Your task to perform on an android device: Show me popular videos on Youtube Image 0: 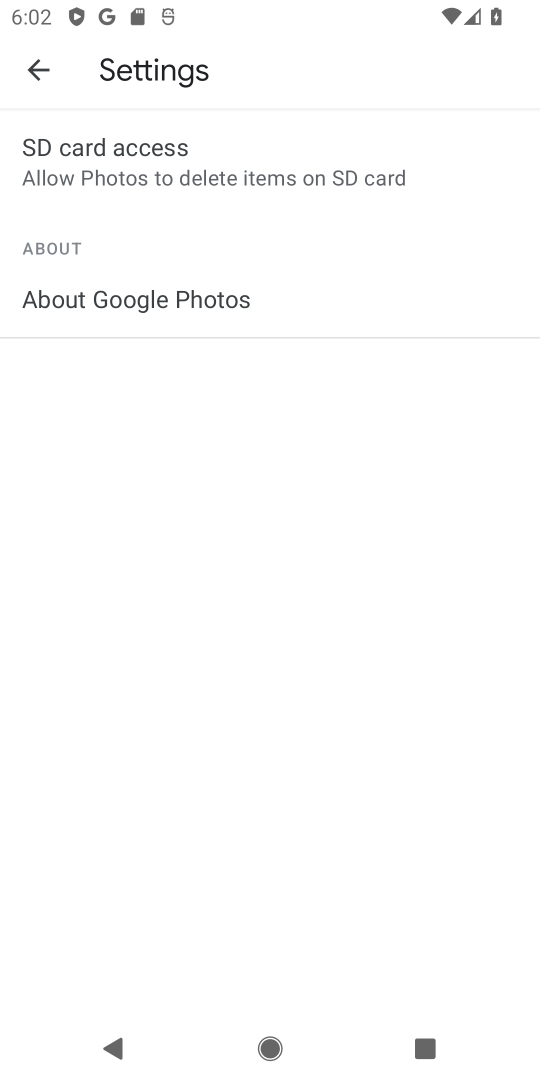
Step 0: press home button
Your task to perform on an android device: Show me popular videos on Youtube Image 1: 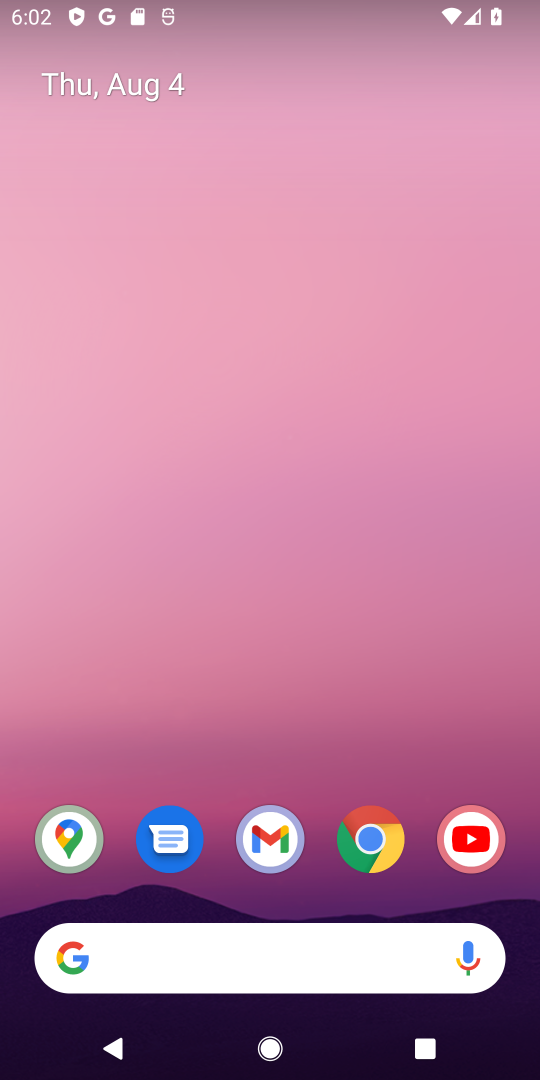
Step 1: drag from (328, 759) to (525, 147)
Your task to perform on an android device: Show me popular videos on Youtube Image 2: 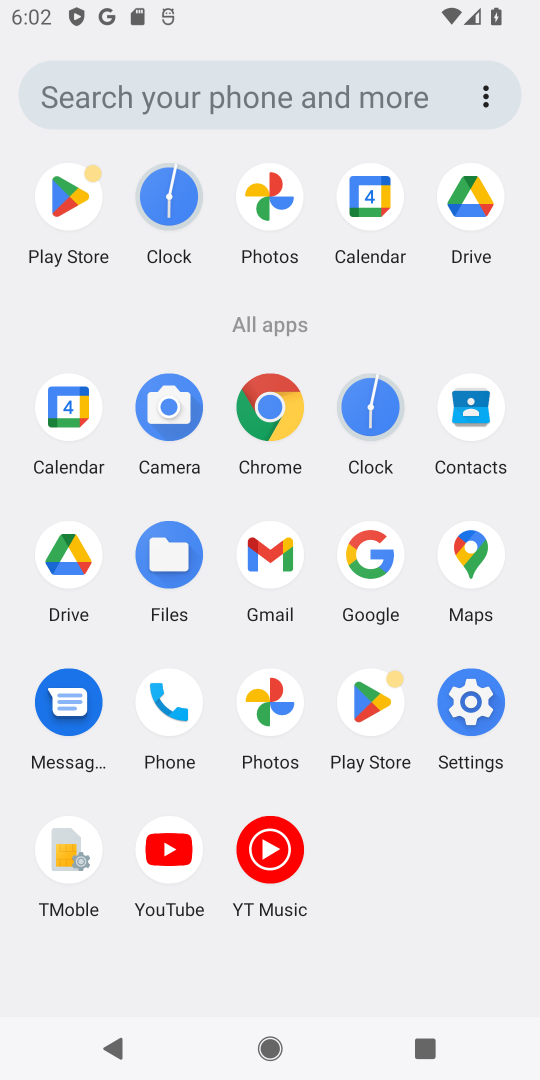
Step 2: click (185, 835)
Your task to perform on an android device: Show me popular videos on Youtube Image 3: 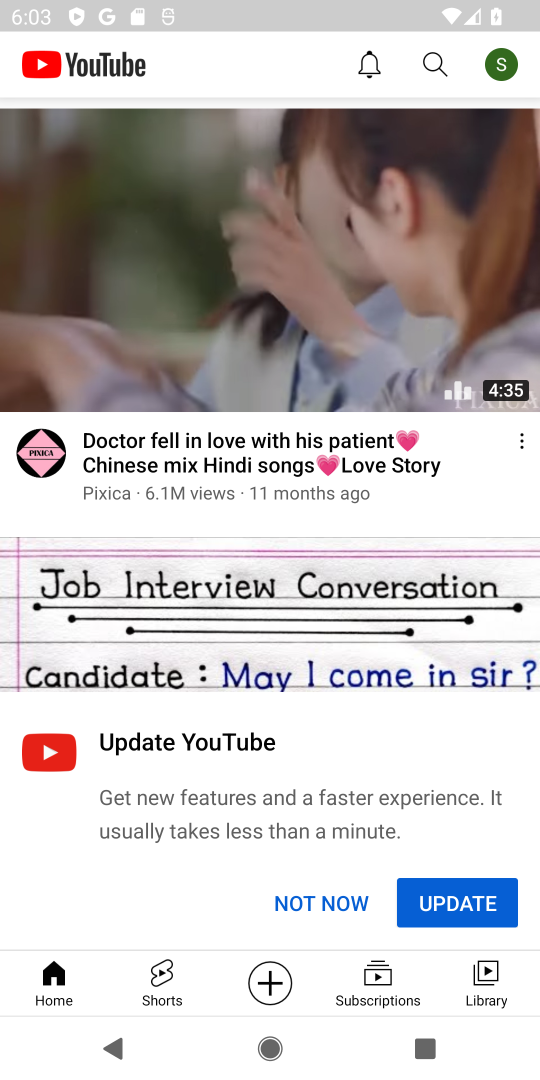
Step 3: click (52, 954)
Your task to perform on an android device: Show me popular videos on Youtube Image 4: 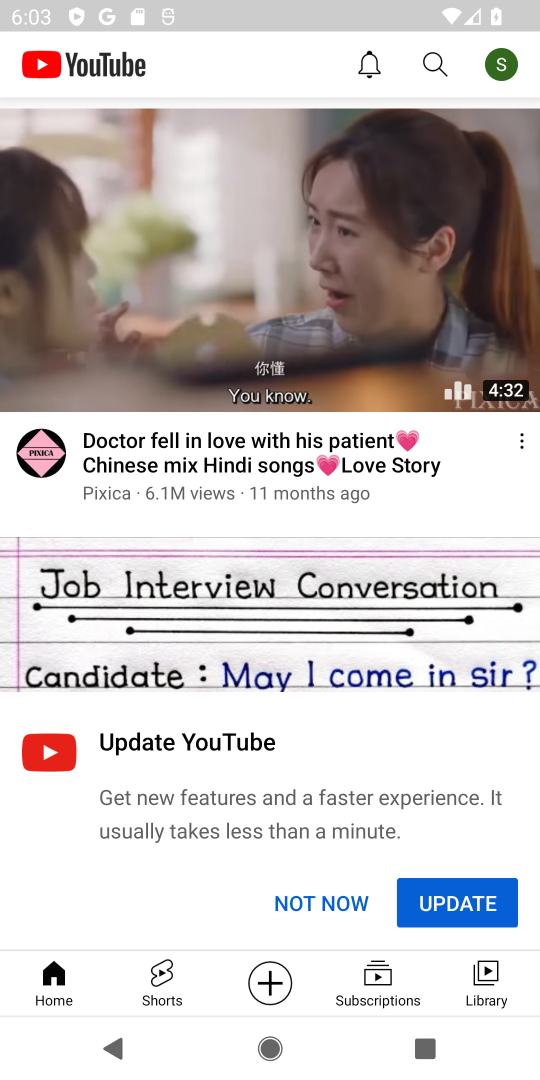
Step 4: drag from (285, 198) to (275, 820)
Your task to perform on an android device: Show me popular videos on Youtube Image 5: 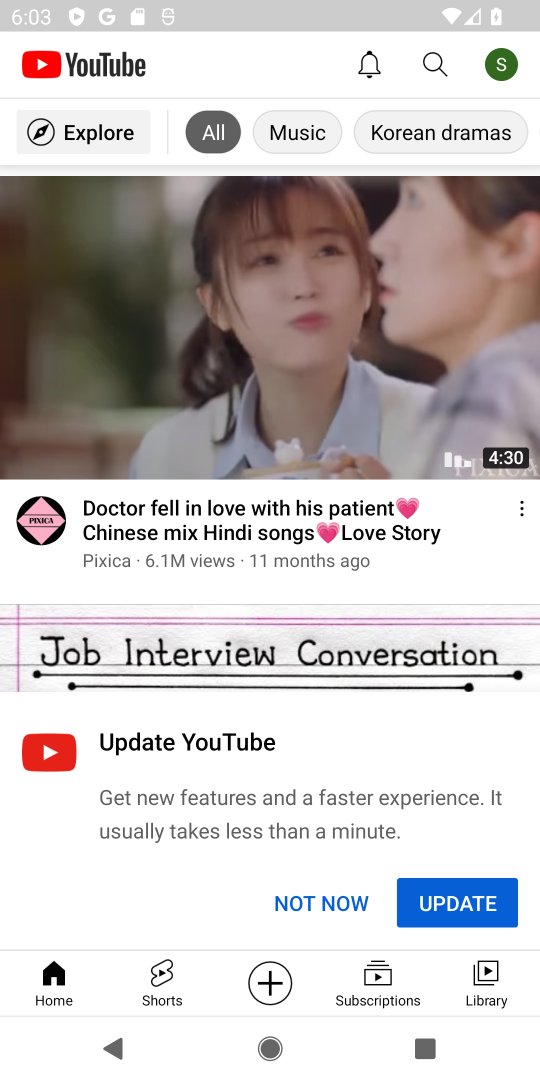
Step 5: click (316, 888)
Your task to perform on an android device: Show me popular videos on Youtube Image 6: 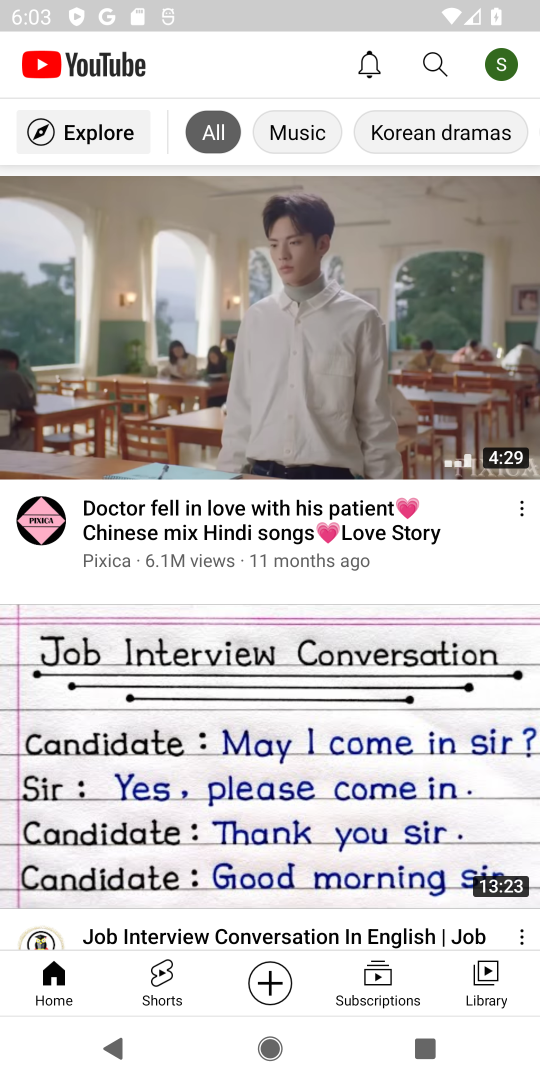
Step 6: click (82, 128)
Your task to perform on an android device: Show me popular videos on Youtube Image 7: 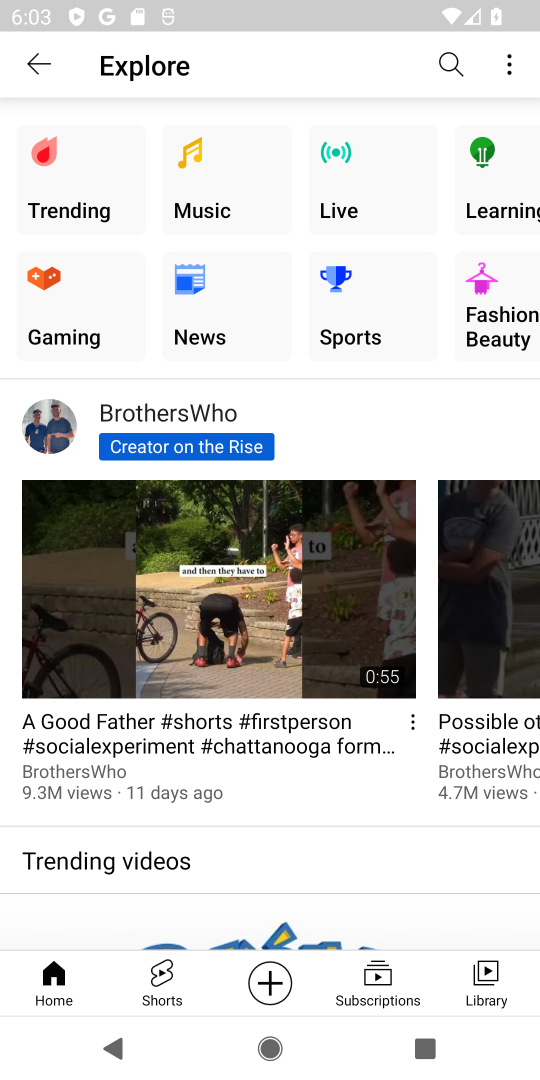
Step 7: task complete